Your task to perform on an android device: Open Yahoo.com Image 0: 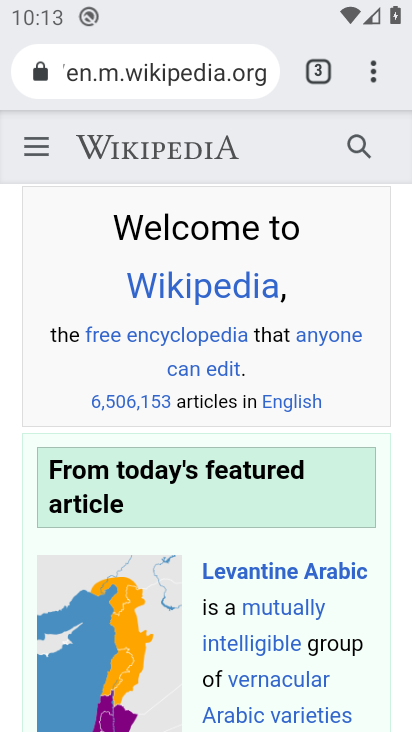
Step 0: press back button
Your task to perform on an android device: Open Yahoo.com Image 1: 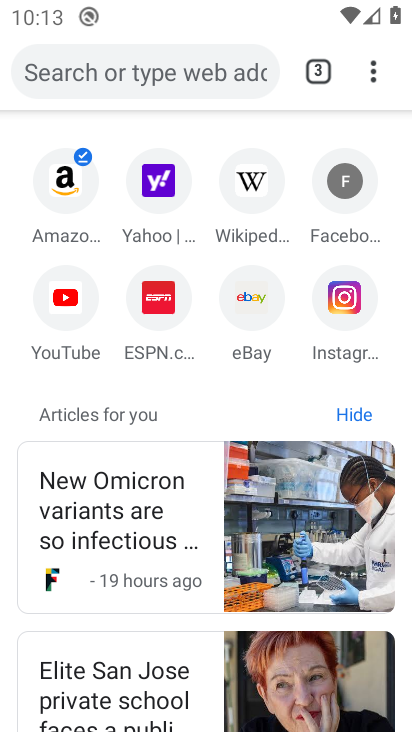
Step 1: click (158, 181)
Your task to perform on an android device: Open Yahoo.com Image 2: 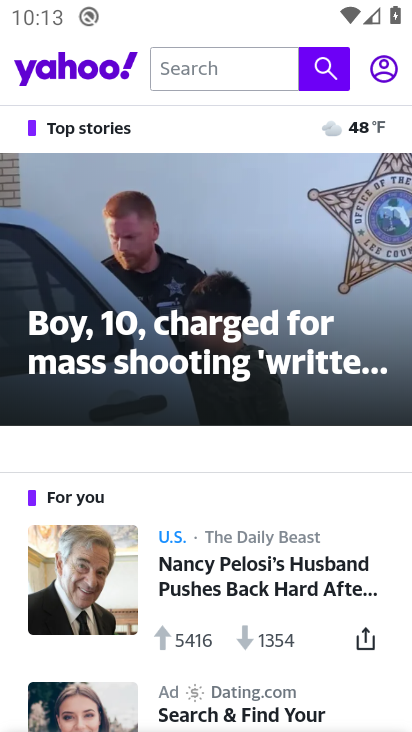
Step 2: task complete